Your task to perform on an android device: set the timer Image 0: 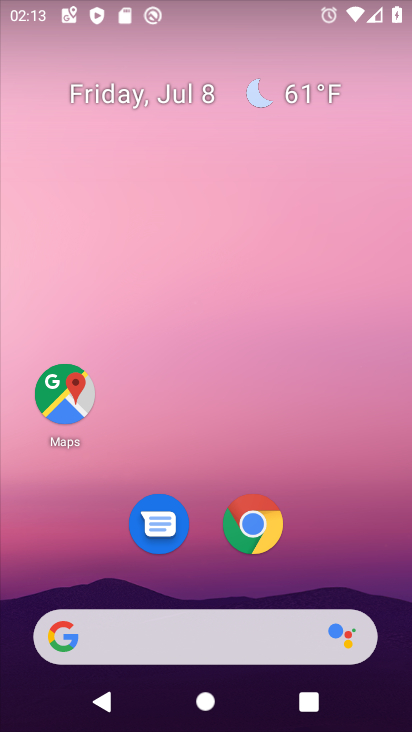
Step 0: drag from (337, 528) to (297, 30)
Your task to perform on an android device: set the timer Image 1: 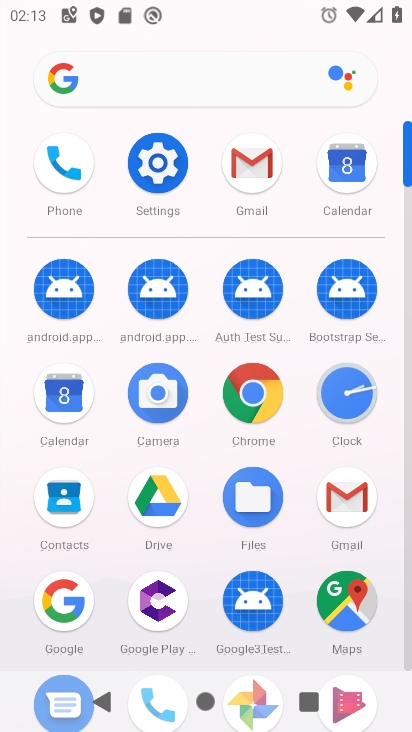
Step 1: click (356, 384)
Your task to perform on an android device: set the timer Image 2: 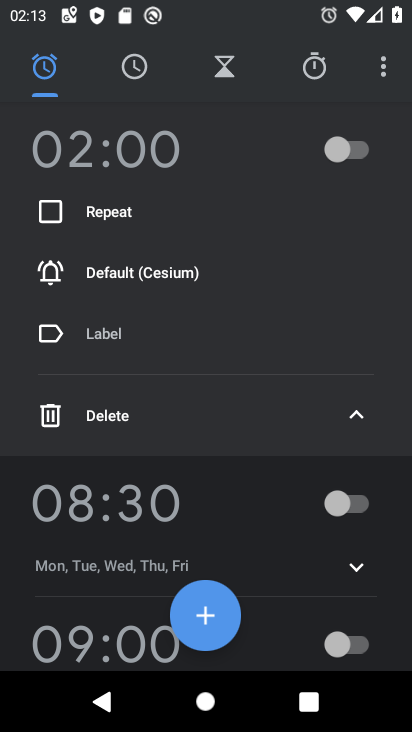
Step 2: click (226, 72)
Your task to perform on an android device: set the timer Image 3: 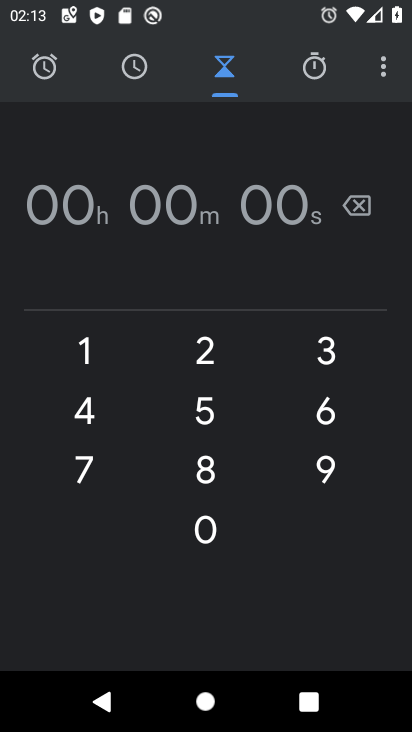
Step 3: click (89, 341)
Your task to perform on an android device: set the timer Image 4: 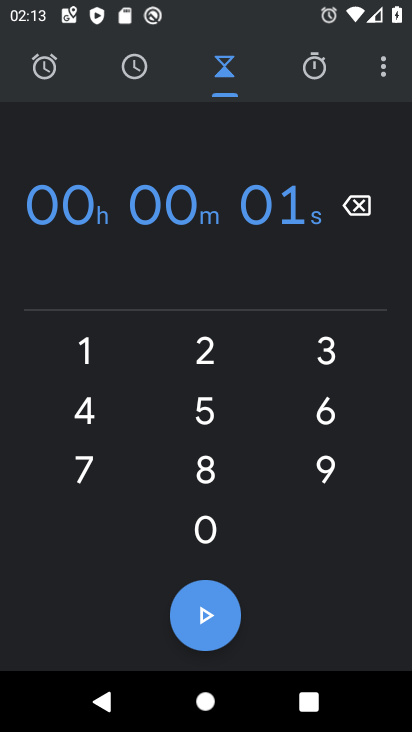
Step 4: click (211, 356)
Your task to perform on an android device: set the timer Image 5: 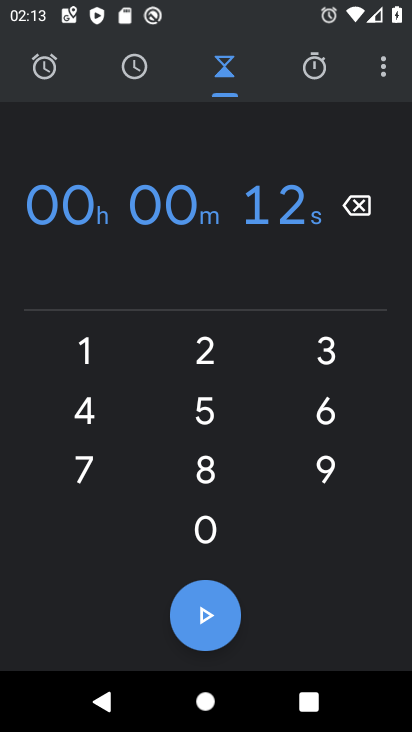
Step 5: task complete